Your task to perform on an android device: turn on priority inbox in the gmail app Image 0: 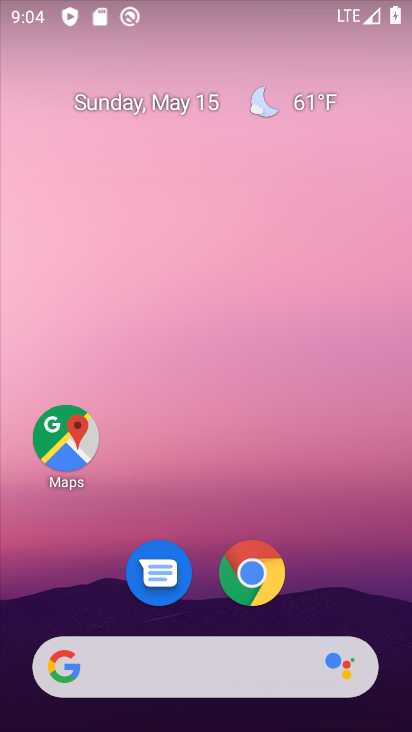
Step 0: press home button
Your task to perform on an android device: turn on priority inbox in the gmail app Image 1: 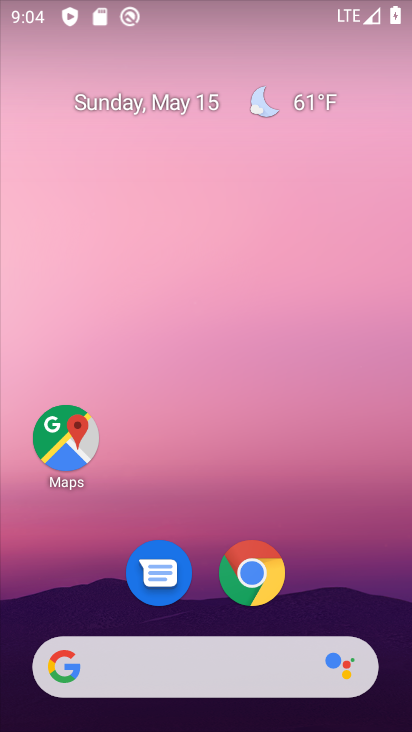
Step 1: drag from (111, 725) to (275, 211)
Your task to perform on an android device: turn on priority inbox in the gmail app Image 2: 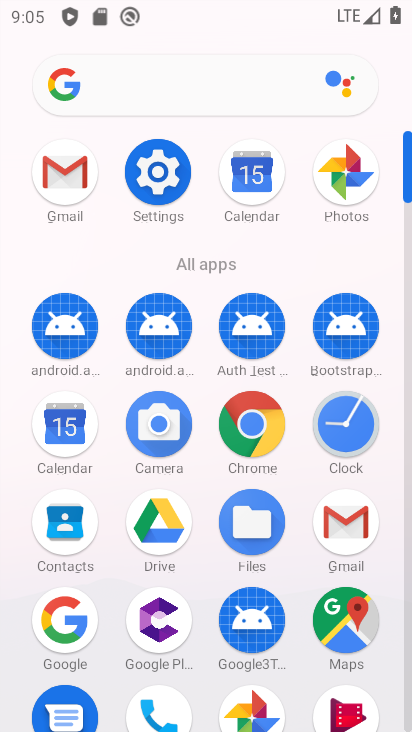
Step 2: click (323, 534)
Your task to perform on an android device: turn on priority inbox in the gmail app Image 3: 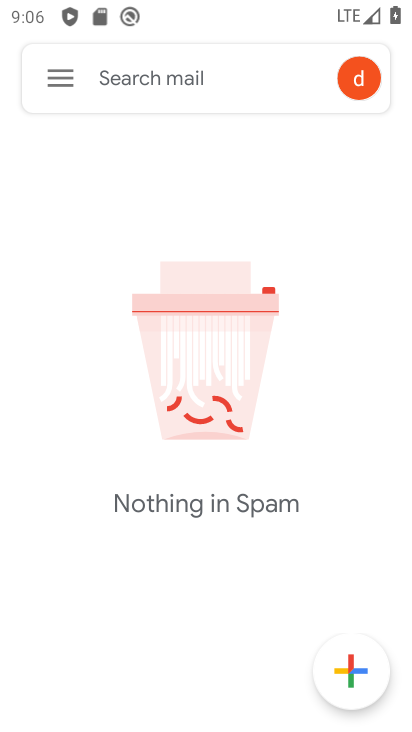
Step 3: click (48, 69)
Your task to perform on an android device: turn on priority inbox in the gmail app Image 4: 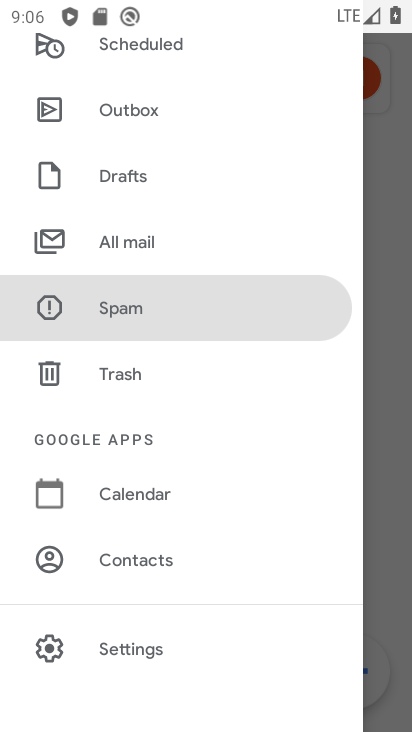
Step 4: click (113, 651)
Your task to perform on an android device: turn on priority inbox in the gmail app Image 5: 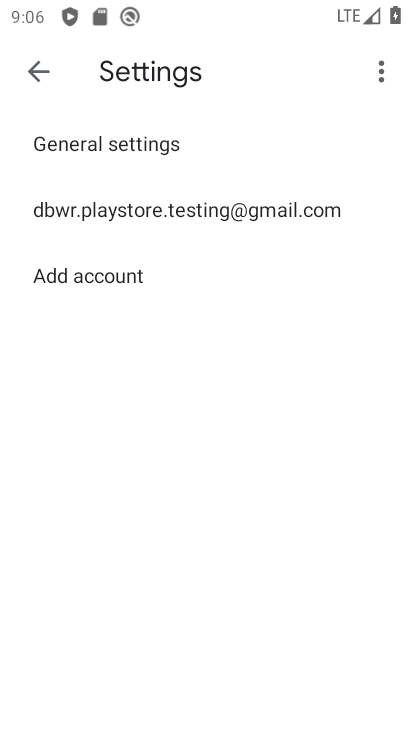
Step 5: click (153, 230)
Your task to perform on an android device: turn on priority inbox in the gmail app Image 6: 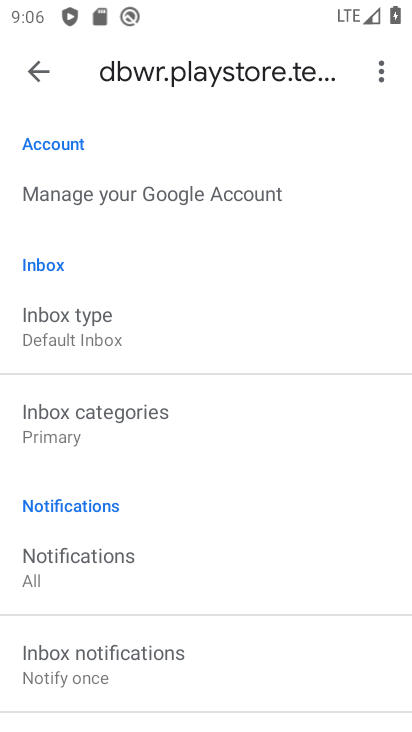
Step 6: click (141, 319)
Your task to perform on an android device: turn on priority inbox in the gmail app Image 7: 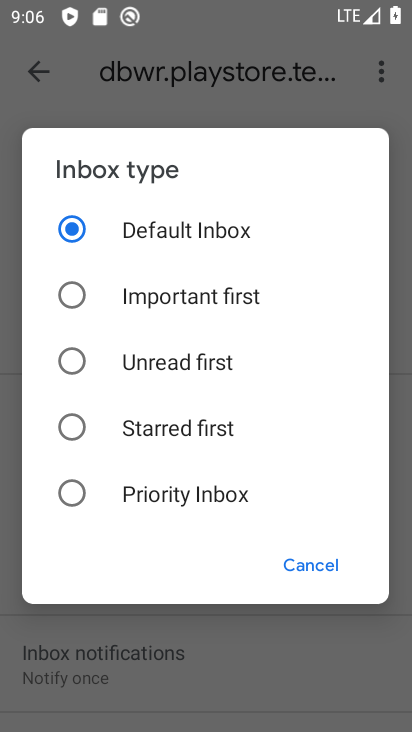
Step 7: click (171, 508)
Your task to perform on an android device: turn on priority inbox in the gmail app Image 8: 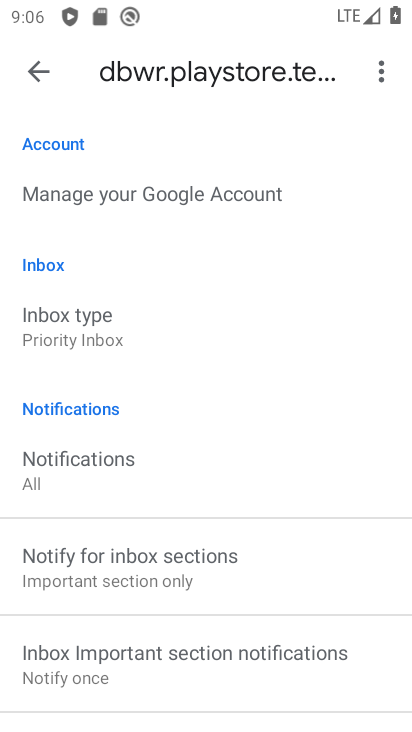
Step 8: task complete